Your task to perform on an android device: move an email to a new category in the gmail app Image 0: 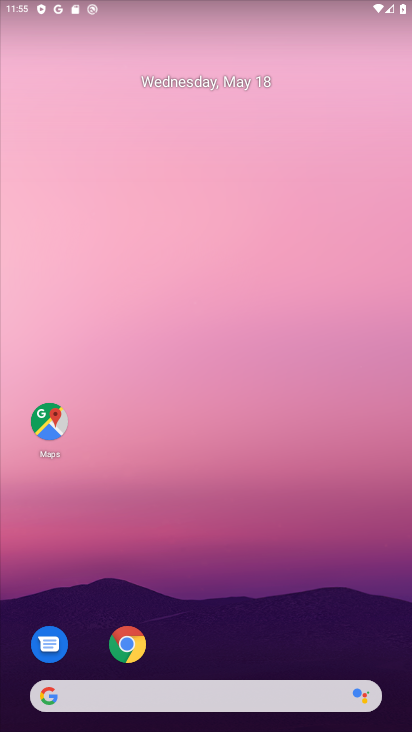
Step 0: drag from (306, 624) to (359, 145)
Your task to perform on an android device: move an email to a new category in the gmail app Image 1: 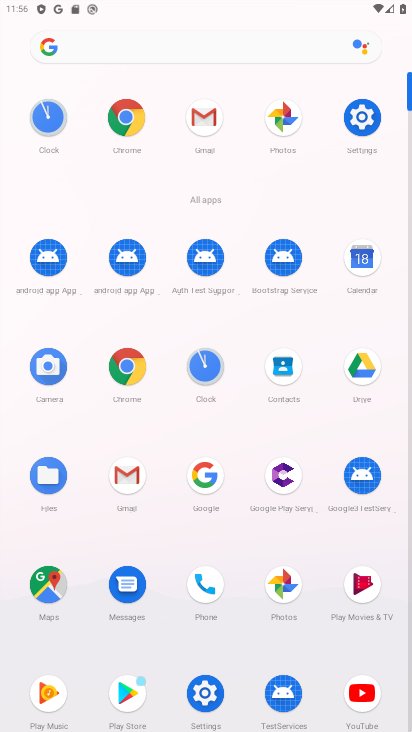
Step 1: click (140, 467)
Your task to perform on an android device: move an email to a new category in the gmail app Image 2: 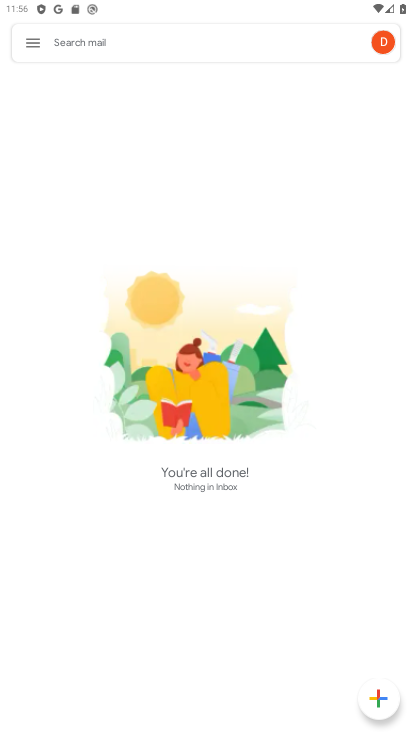
Step 2: click (38, 48)
Your task to perform on an android device: move an email to a new category in the gmail app Image 3: 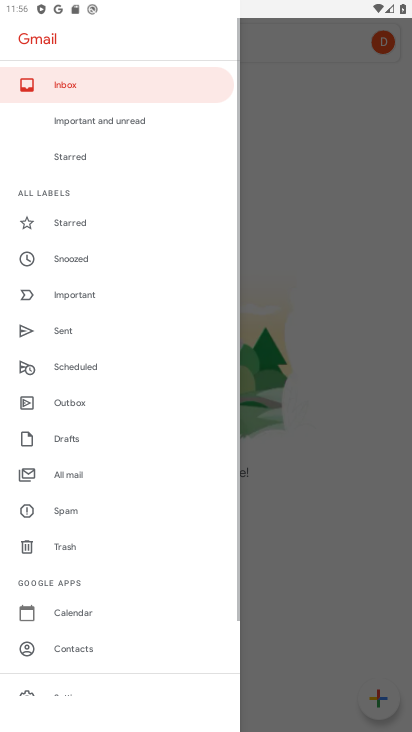
Step 3: click (86, 465)
Your task to perform on an android device: move an email to a new category in the gmail app Image 4: 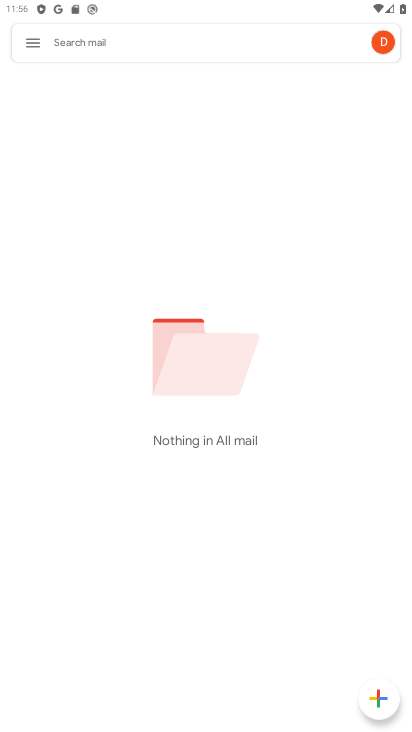
Step 4: task complete